Your task to perform on an android device: What's the weather going to be tomorrow? Image 0: 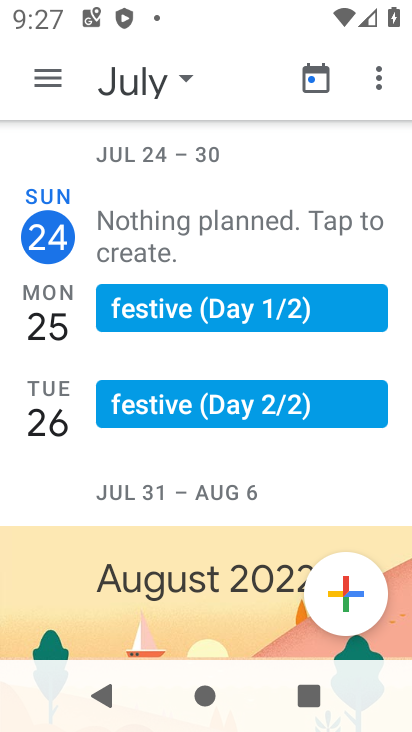
Step 0: press home button
Your task to perform on an android device: What's the weather going to be tomorrow? Image 1: 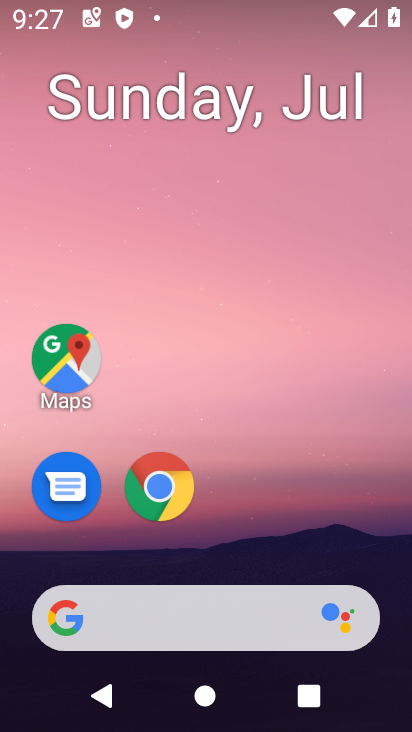
Step 1: drag from (354, 552) to (362, 97)
Your task to perform on an android device: What's the weather going to be tomorrow? Image 2: 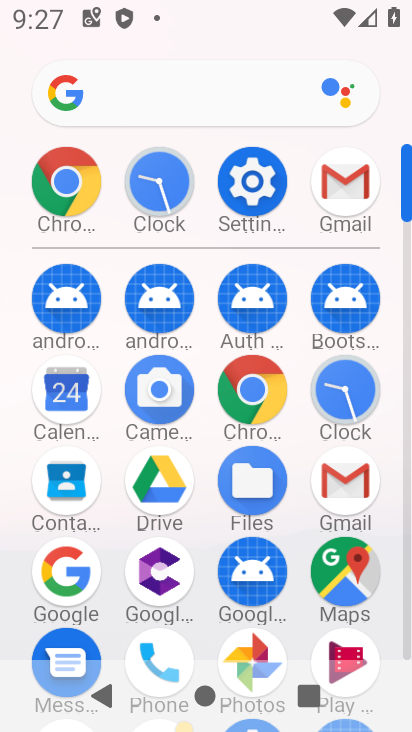
Step 2: click (247, 94)
Your task to perform on an android device: What's the weather going to be tomorrow? Image 3: 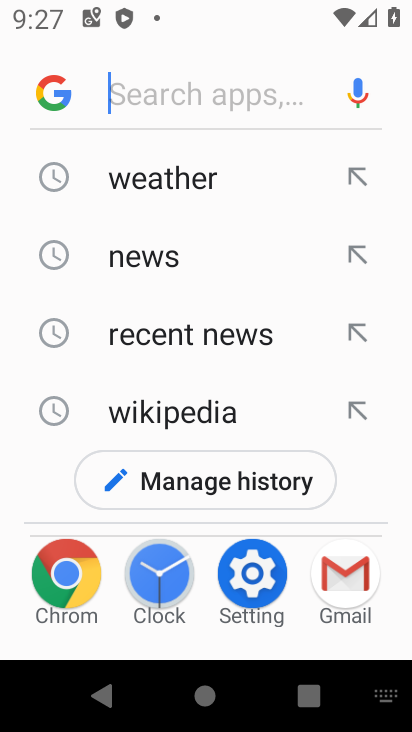
Step 3: click (198, 182)
Your task to perform on an android device: What's the weather going to be tomorrow? Image 4: 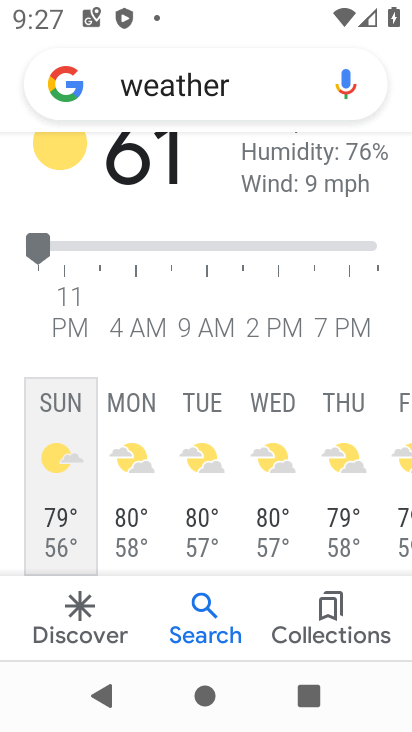
Step 4: click (211, 406)
Your task to perform on an android device: What's the weather going to be tomorrow? Image 5: 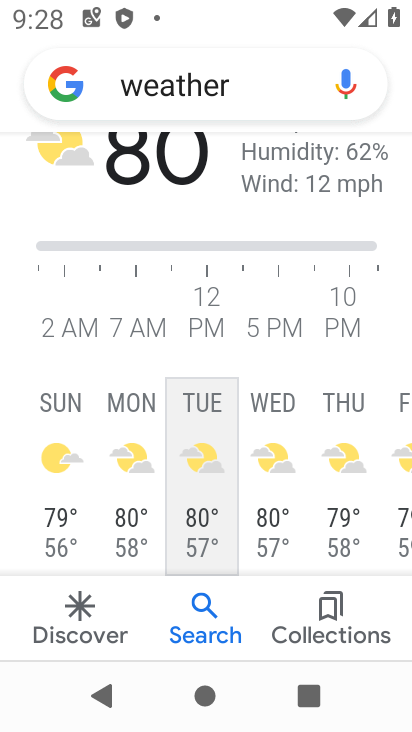
Step 5: task complete